Your task to perform on an android device: Open internet settings Image 0: 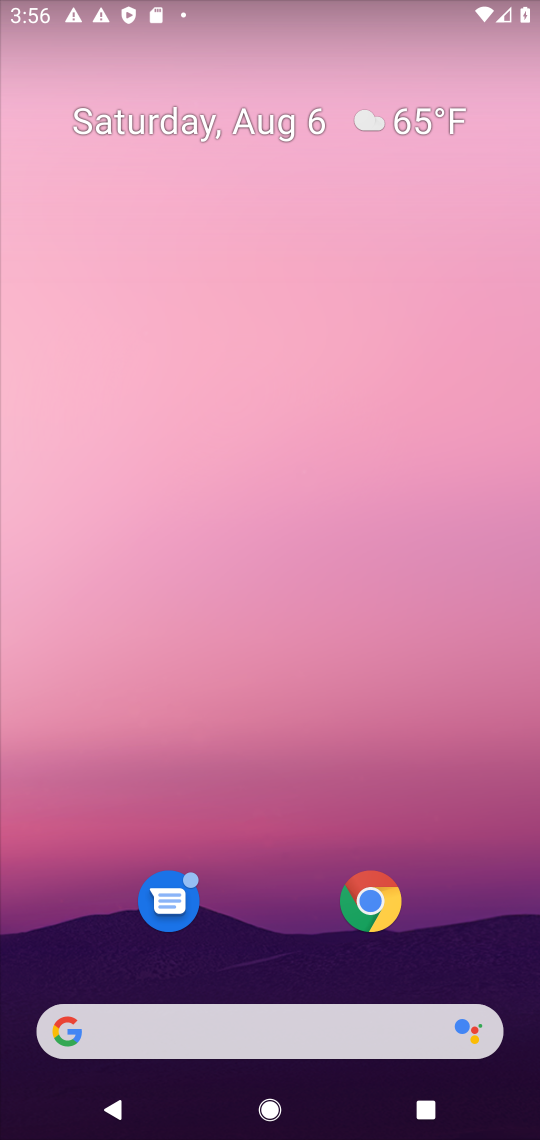
Step 0: press home button
Your task to perform on an android device: Open internet settings Image 1: 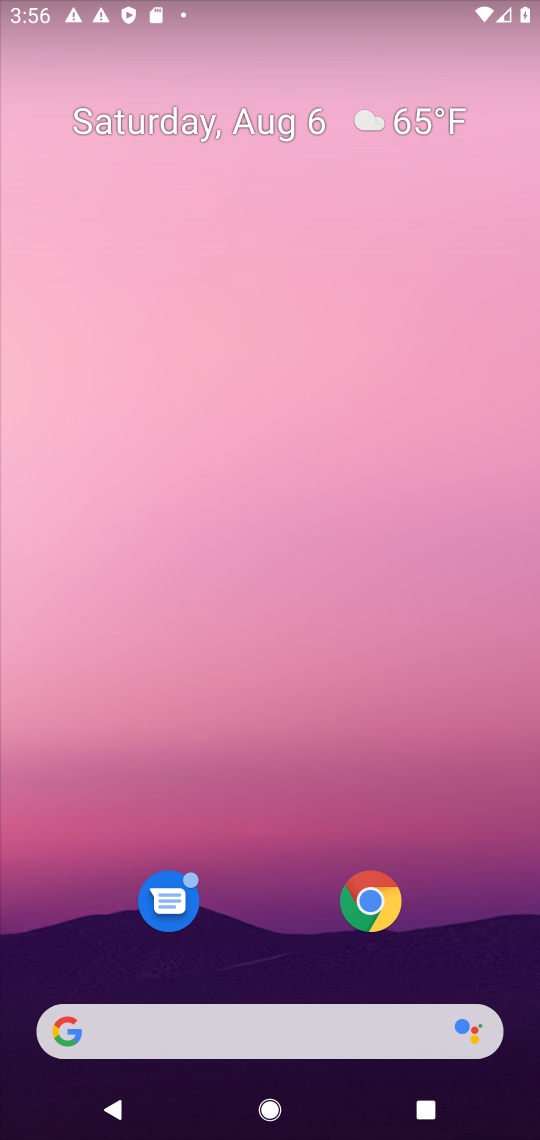
Step 1: drag from (292, 897) to (309, 280)
Your task to perform on an android device: Open internet settings Image 2: 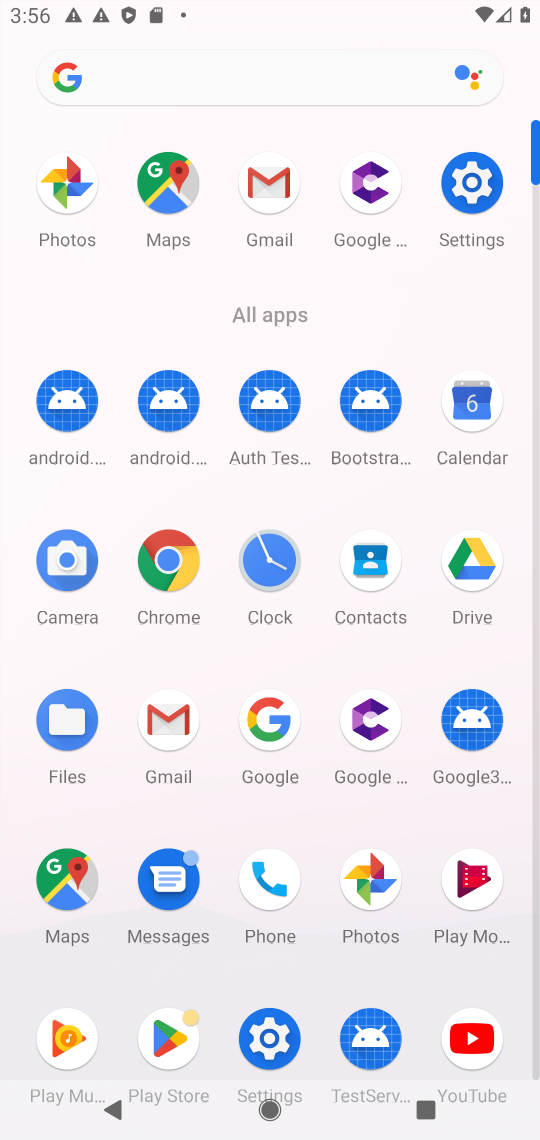
Step 2: click (263, 1033)
Your task to perform on an android device: Open internet settings Image 3: 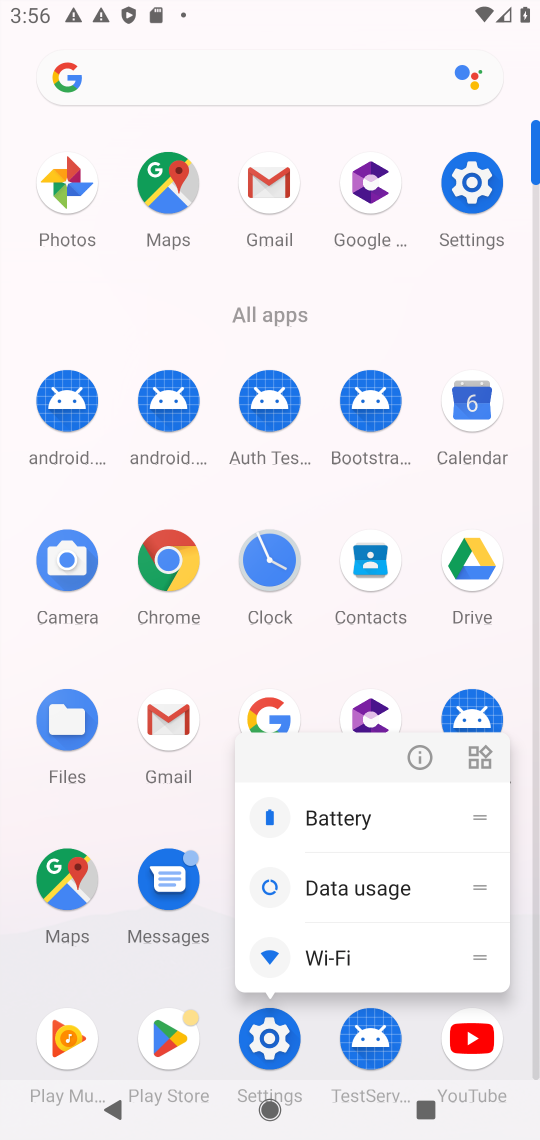
Step 3: click (268, 1052)
Your task to perform on an android device: Open internet settings Image 4: 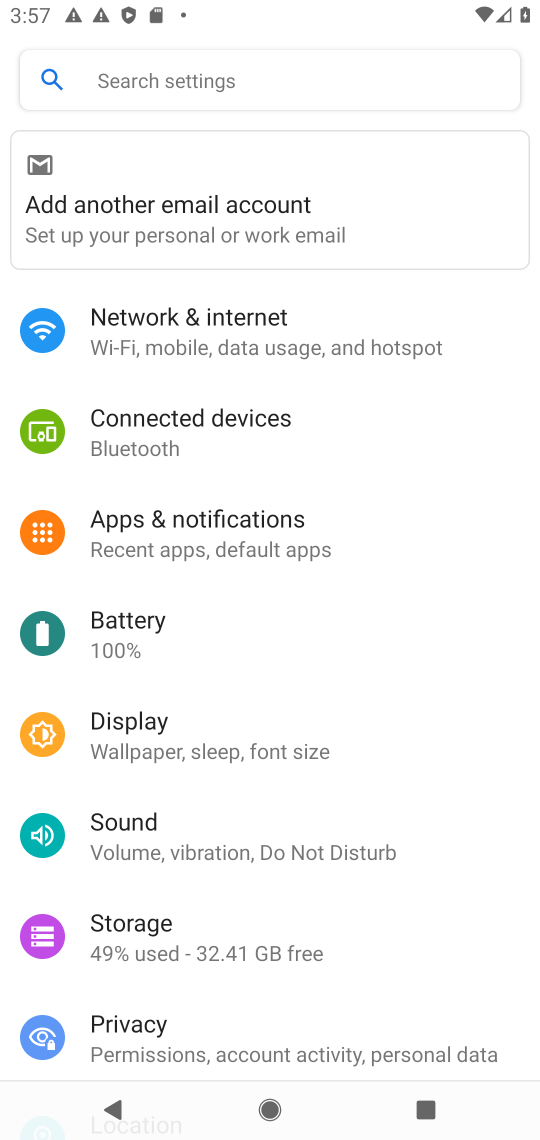
Step 4: click (197, 353)
Your task to perform on an android device: Open internet settings Image 5: 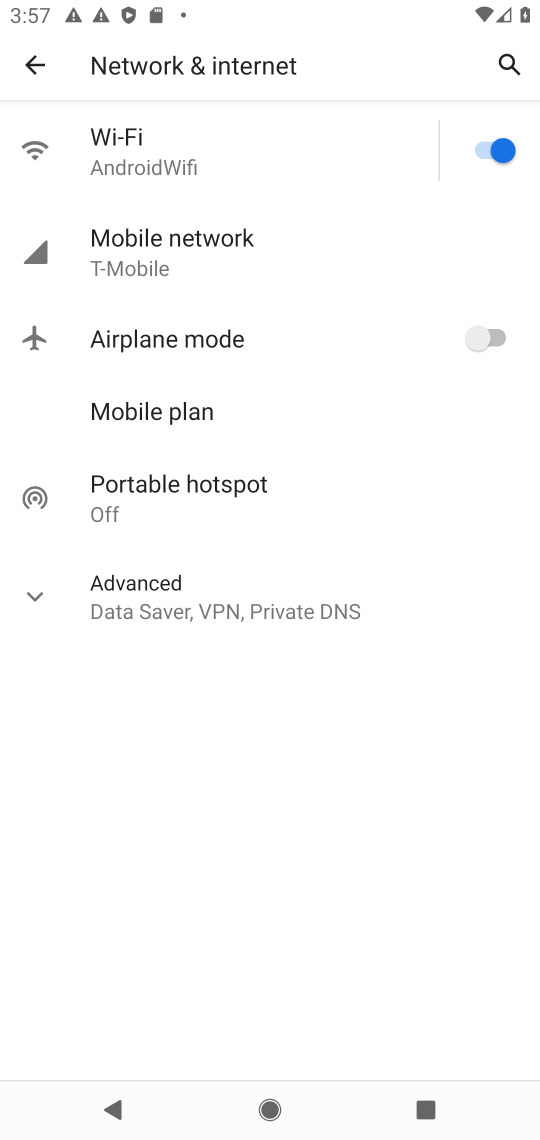
Step 5: task complete